Your task to perform on an android device: turn on the 12-hour format for clock Image 0: 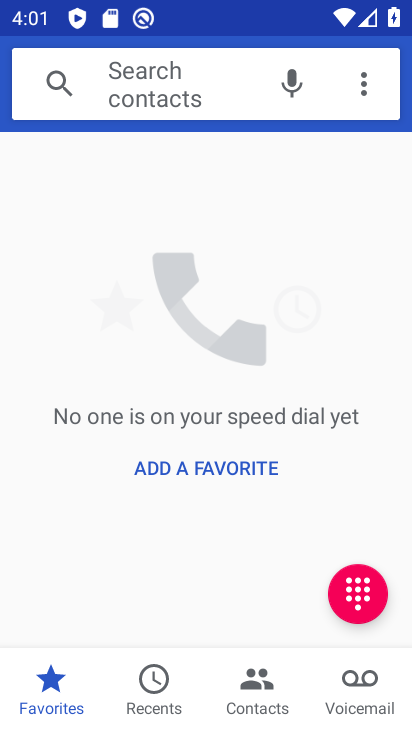
Step 0: press home button
Your task to perform on an android device: turn on the 12-hour format for clock Image 1: 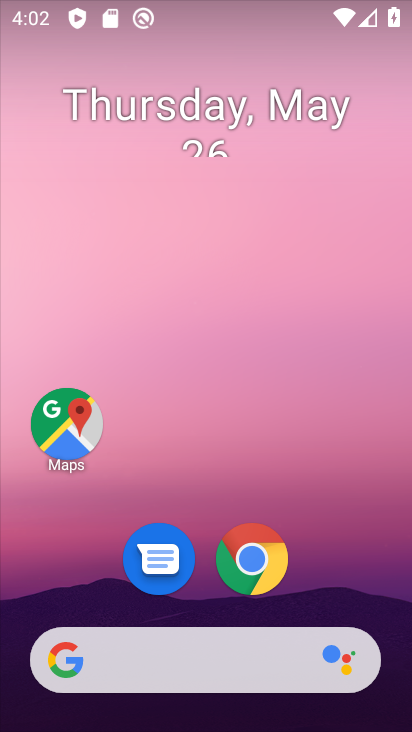
Step 1: drag from (353, 586) to (248, 14)
Your task to perform on an android device: turn on the 12-hour format for clock Image 2: 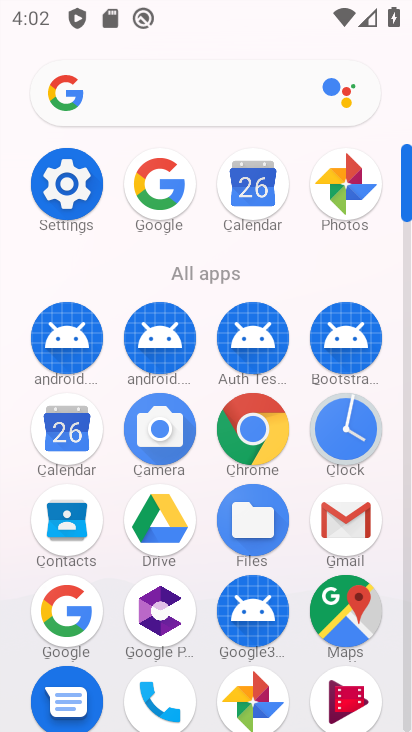
Step 2: click (350, 434)
Your task to perform on an android device: turn on the 12-hour format for clock Image 3: 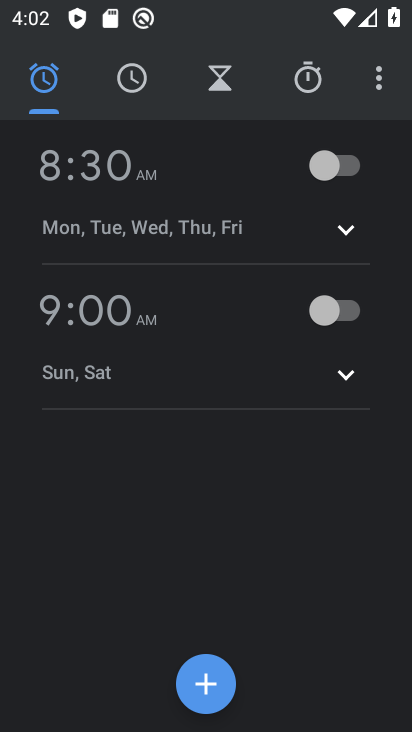
Step 3: click (380, 75)
Your task to perform on an android device: turn on the 12-hour format for clock Image 4: 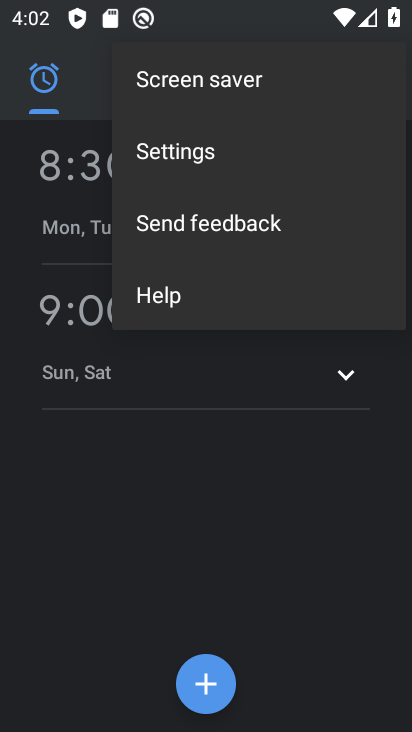
Step 4: click (196, 154)
Your task to perform on an android device: turn on the 12-hour format for clock Image 5: 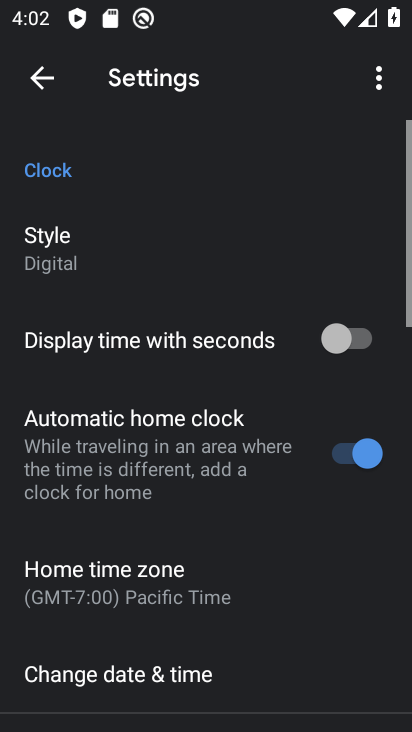
Step 5: drag from (271, 629) to (259, 315)
Your task to perform on an android device: turn on the 12-hour format for clock Image 6: 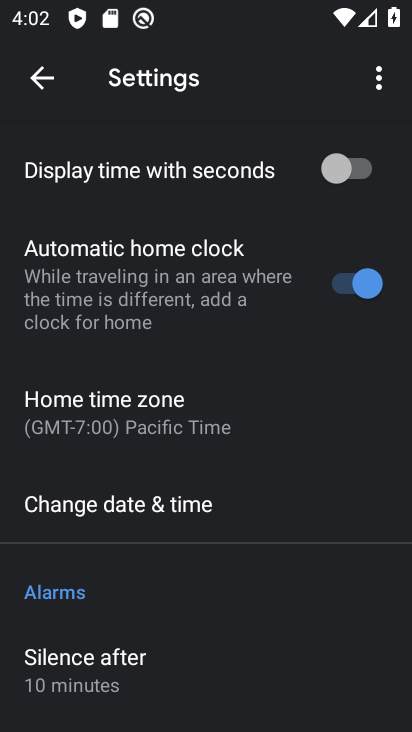
Step 6: click (200, 472)
Your task to perform on an android device: turn on the 12-hour format for clock Image 7: 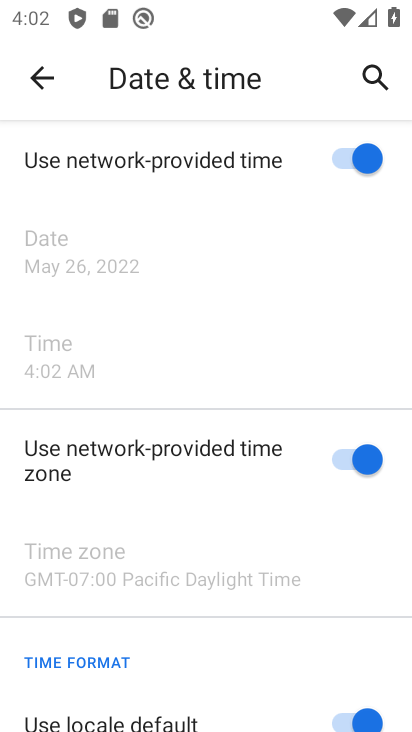
Step 7: drag from (283, 501) to (268, 111)
Your task to perform on an android device: turn on the 12-hour format for clock Image 8: 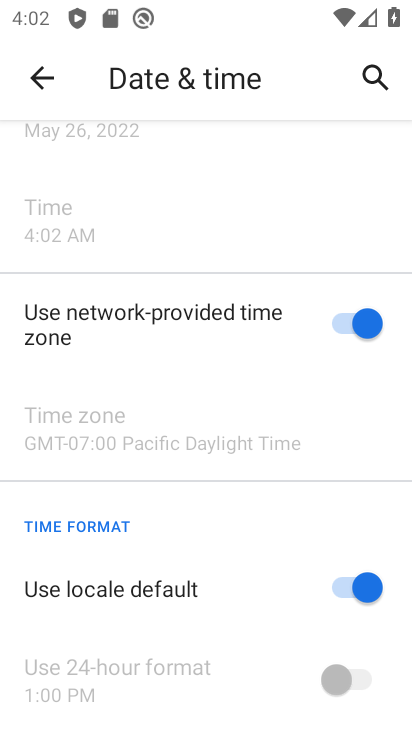
Step 8: click (345, 577)
Your task to perform on an android device: turn on the 12-hour format for clock Image 9: 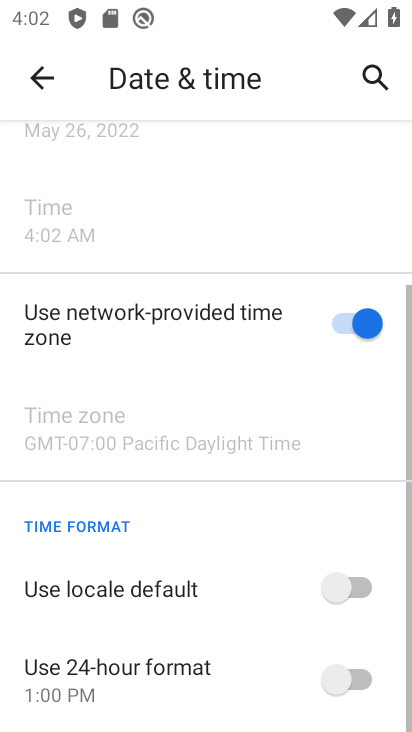
Step 9: click (362, 587)
Your task to perform on an android device: turn on the 12-hour format for clock Image 10: 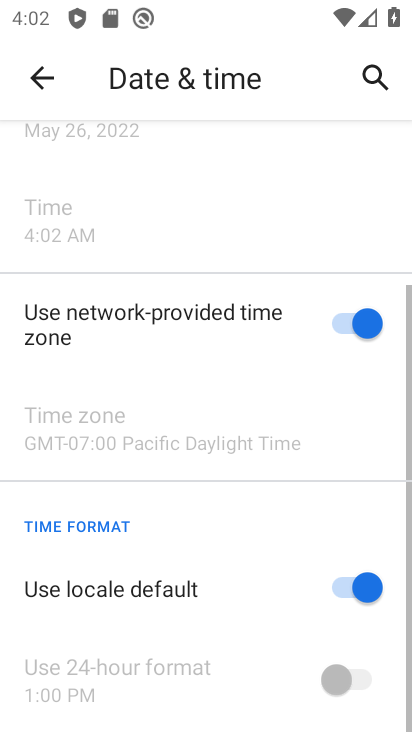
Step 10: task complete